Your task to perform on an android device: create a new album in the google photos Image 0: 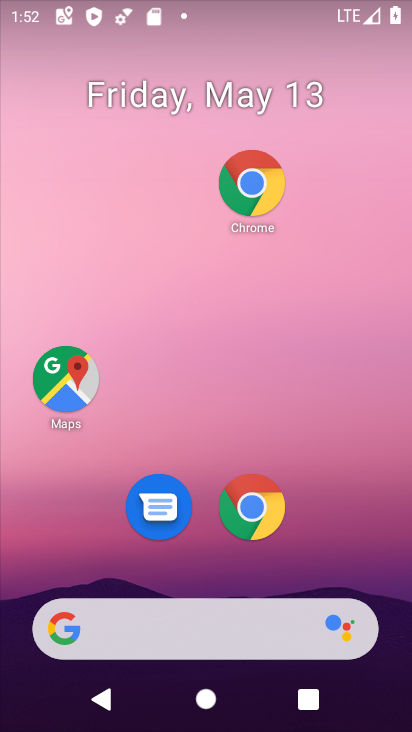
Step 0: click (200, 70)
Your task to perform on an android device: create a new album in the google photos Image 1: 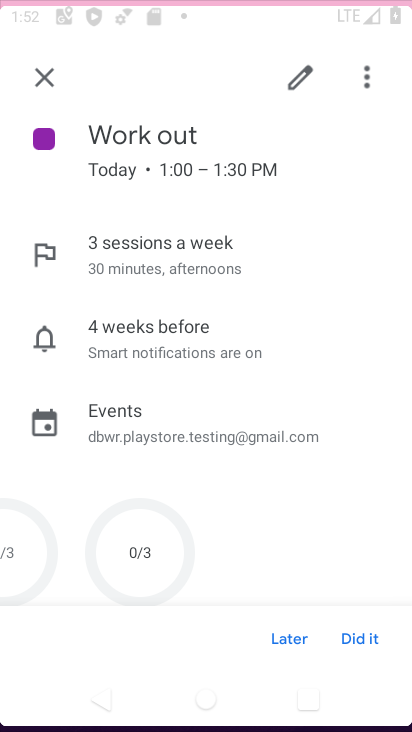
Step 1: drag from (332, 530) to (196, 88)
Your task to perform on an android device: create a new album in the google photos Image 2: 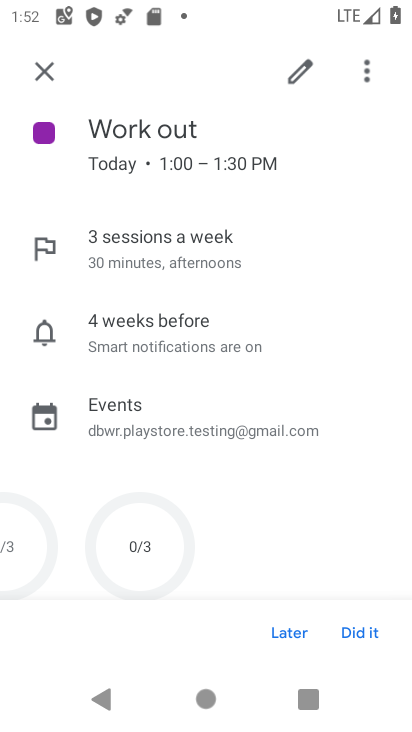
Step 2: click (48, 80)
Your task to perform on an android device: create a new album in the google photos Image 3: 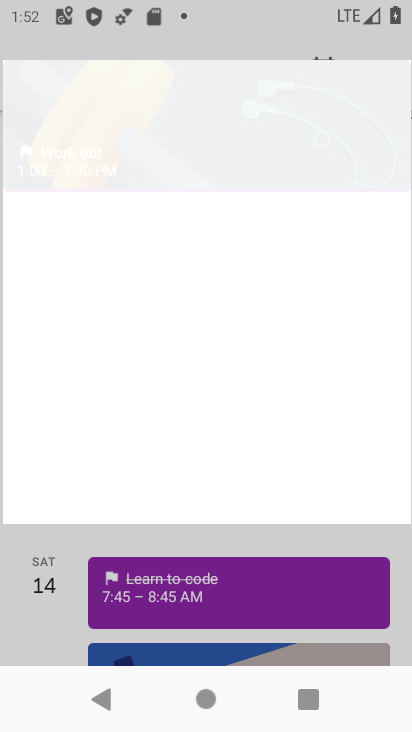
Step 3: click (47, 74)
Your task to perform on an android device: create a new album in the google photos Image 4: 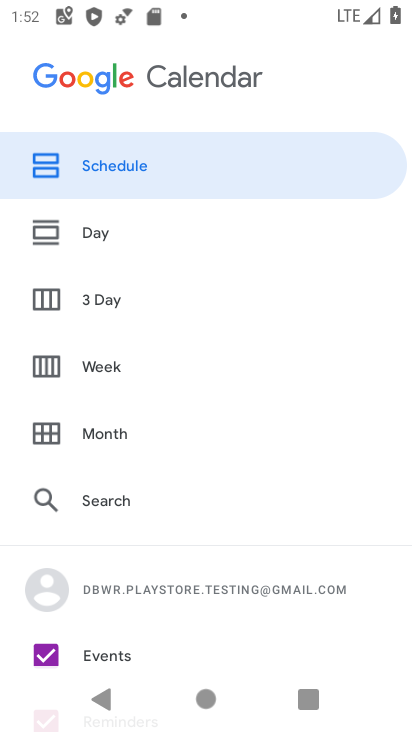
Step 4: press back button
Your task to perform on an android device: create a new album in the google photos Image 5: 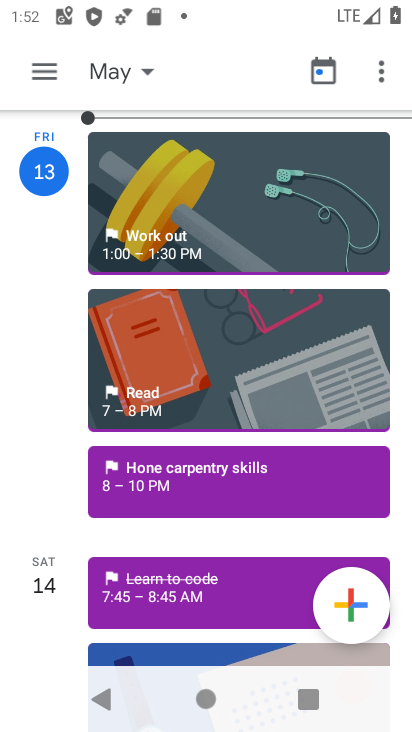
Step 5: press home button
Your task to perform on an android device: create a new album in the google photos Image 6: 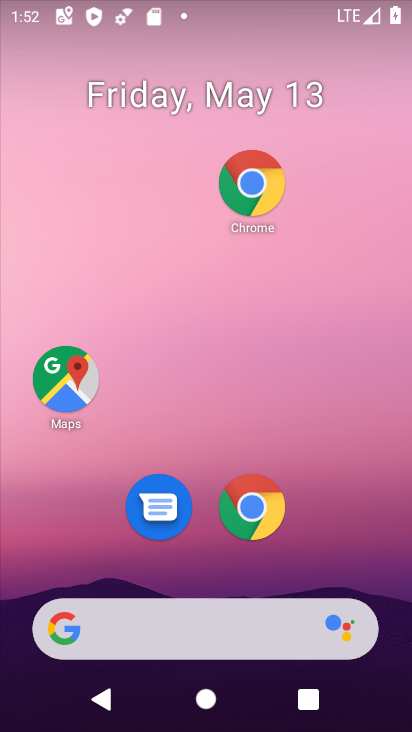
Step 6: drag from (259, 614) to (58, 95)
Your task to perform on an android device: create a new album in the google photos Image 7: 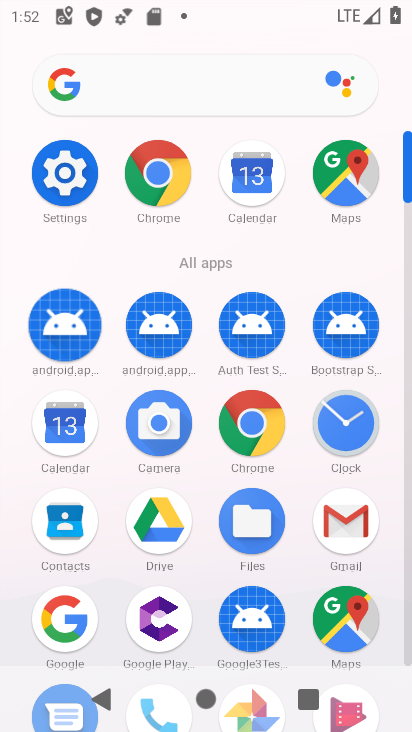
Step 7: click (342, 605)
Your task to perform on an android device: create a new album in the google photos Image 8: 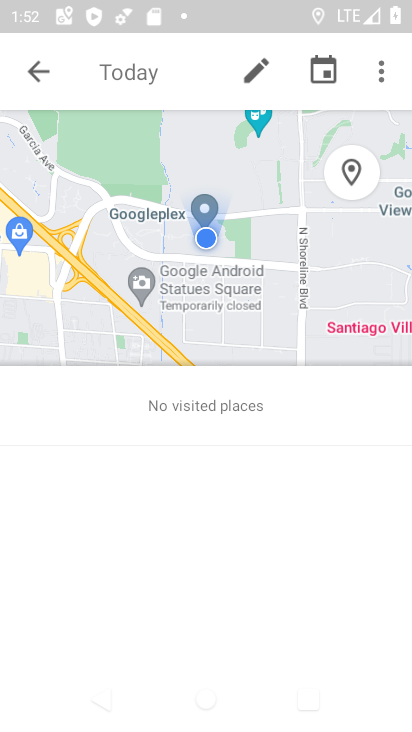
Step 8: press back button
Your task to perform on an android device: create a new album in the google photos Image 9: 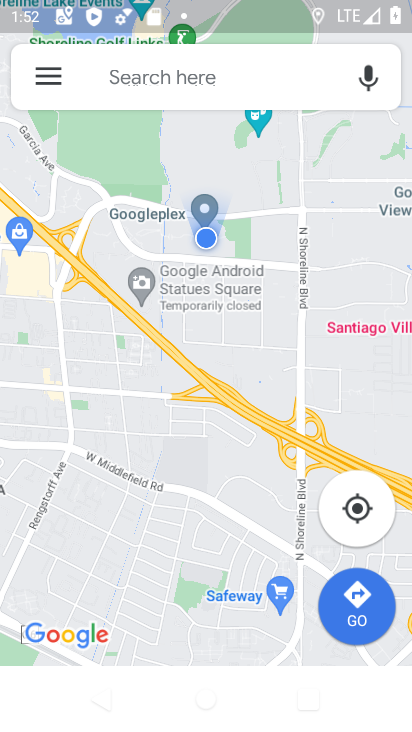
Step 9: press home button
Your task to perform on an android device: create a new album in the google photos Image 10: 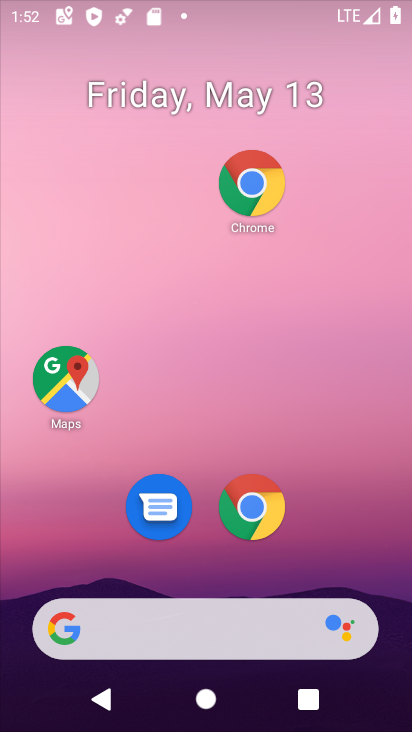
Step 10: drag from (260, 524) to (165, 63)
Your task to perform on an android device: create a new album in the google photos Image 11: 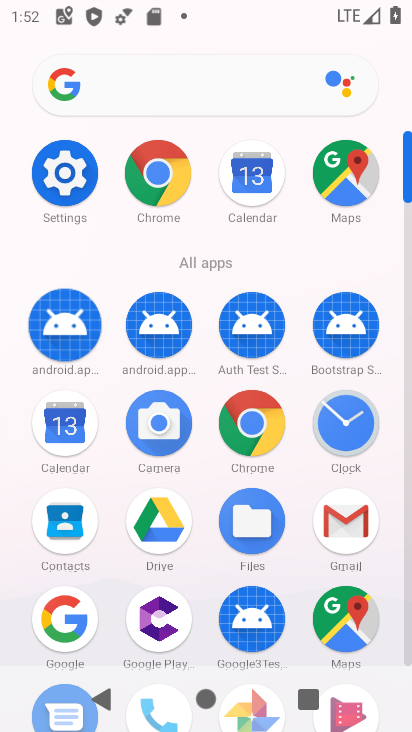
Step 11: drag from (192, 427) to (235, 20)
Your task to perform on an android device: create a new album in the google photos Image 12: 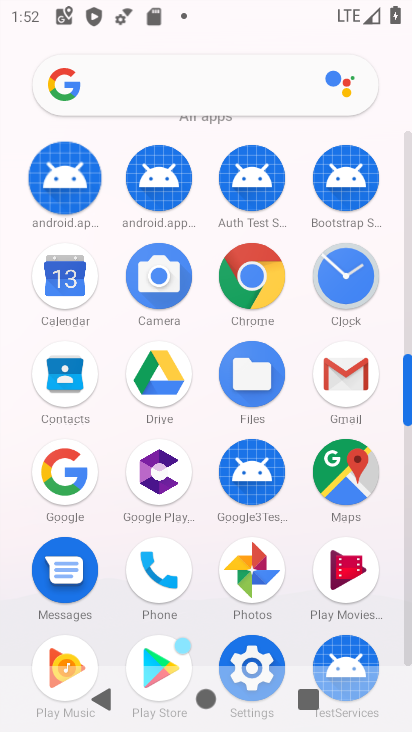
Step 12: drag from (237, 542) to (263, 582)
Your task to perform on an android device: create a new album in the google photos Image 13: 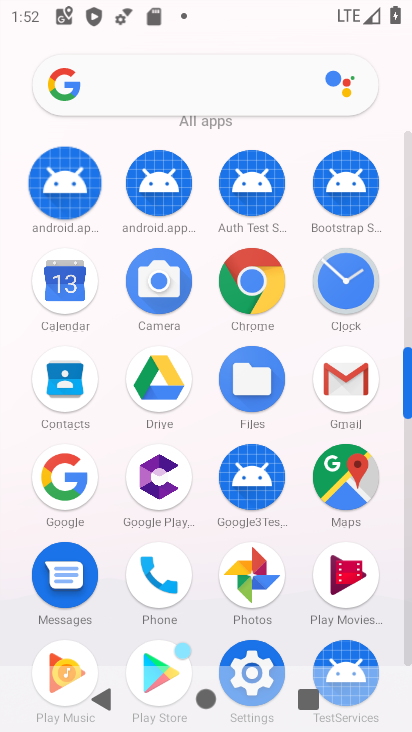
Step 13: click (250, 573)
Your task to perform on an android device: create a new album in the google photos Image 14: 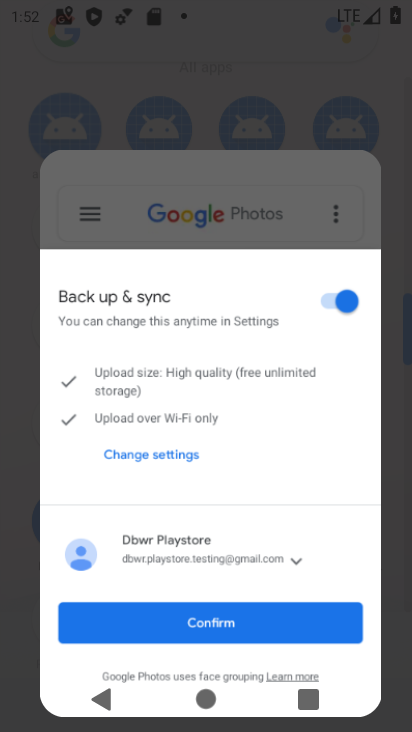
Step 14: click (249, 572)
Your task to perform on an android device: create a new album in the google photos Image 15: 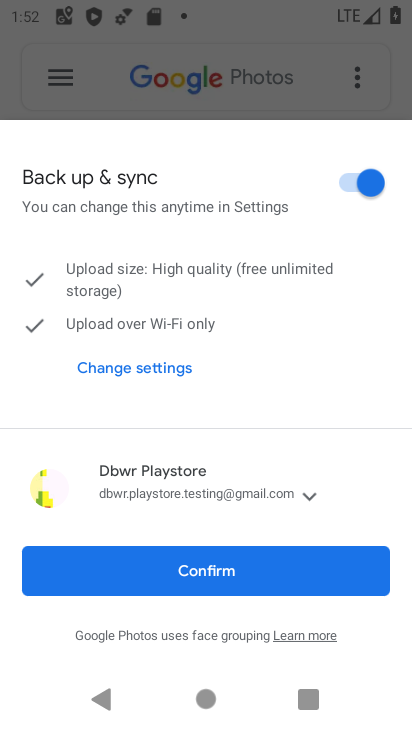
Step 15: click (208, 565)
Your task to perform on an android device: create a new album in the google photos Image 16: 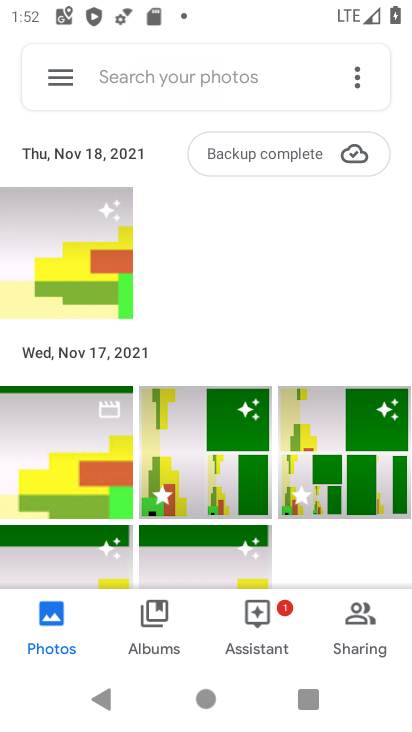
Step 16: task complete